Your task to perform on an android device: When is my next appointment? Image 0: 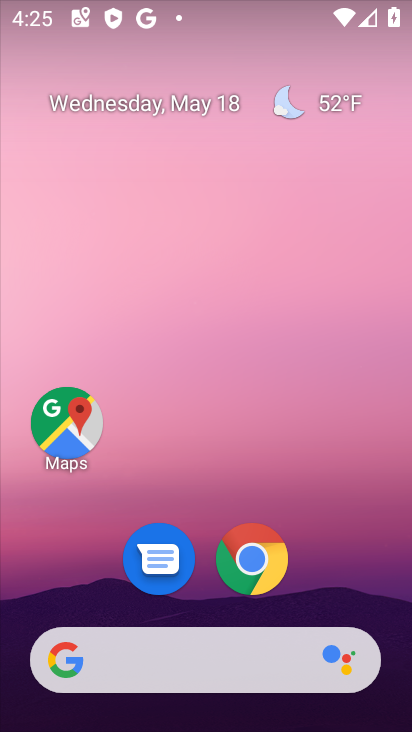
Step 0: drag from (192, 576) to (246, 162)
Your task to perform on an android device: When is my next appointment? Image 1: 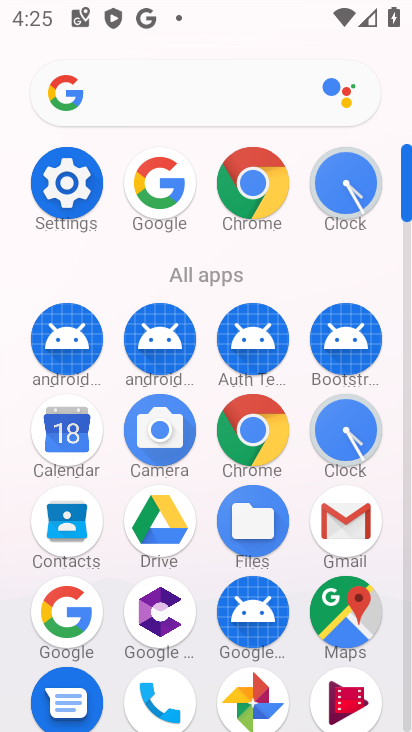
Step 1: click (64, 442)
Your task to perform on an android device: When is my next appointment? Image 2: 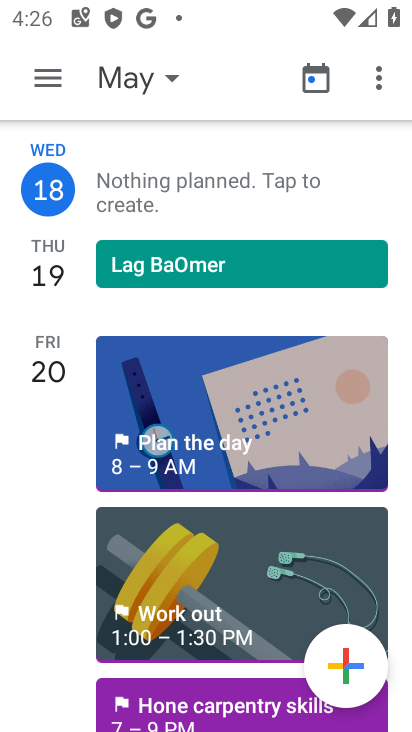
Step 2: task complete